Your task to perform on an android device: Is it going to rain tomorrow? Image 0: 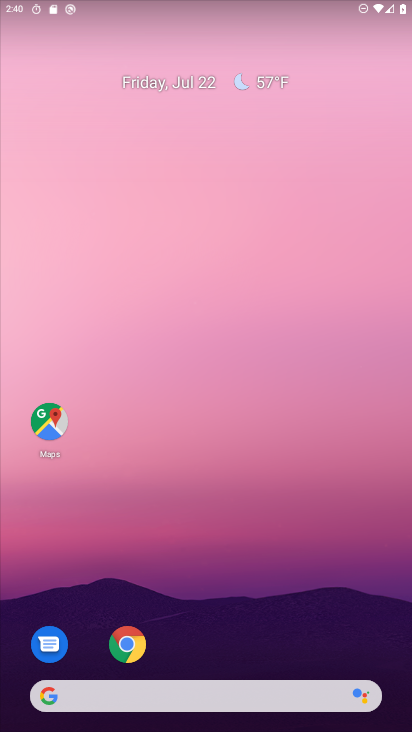
Step 0: drag from (184, 660) to (190, 309)
Your task to perform on an android device: Is it going to rain tomorrow? Image 1: 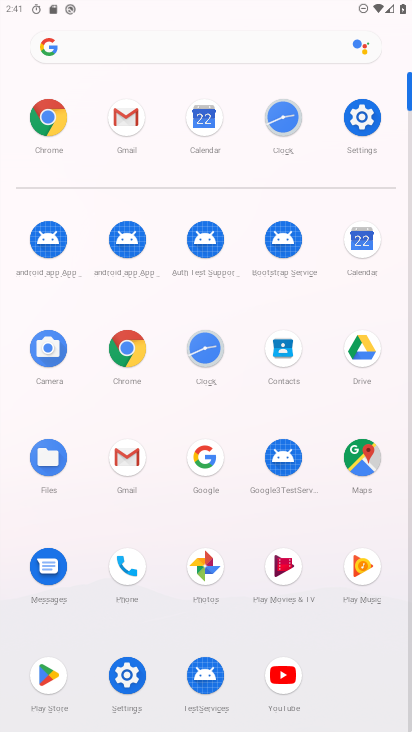
Step 1: click (200, 463)
Your task to perform on an android device: Is it going to rain tomorrow? Image 2: 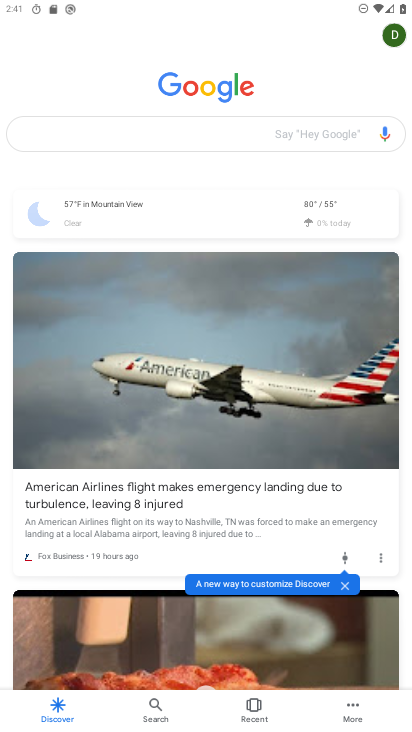
Step 2: click (172, 222)
Your task to perform on an android device: Is it going to rain tomorrow? Image 3: 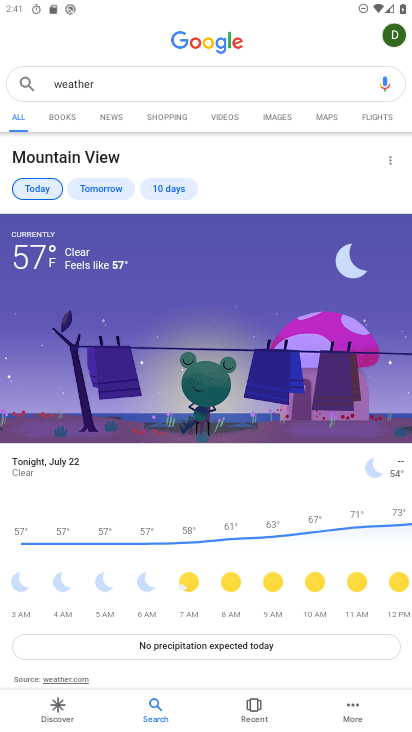
Step 3: click (88, 192)
Your task to perform on an android device: Is it going to rain tomorrow? Image 4: 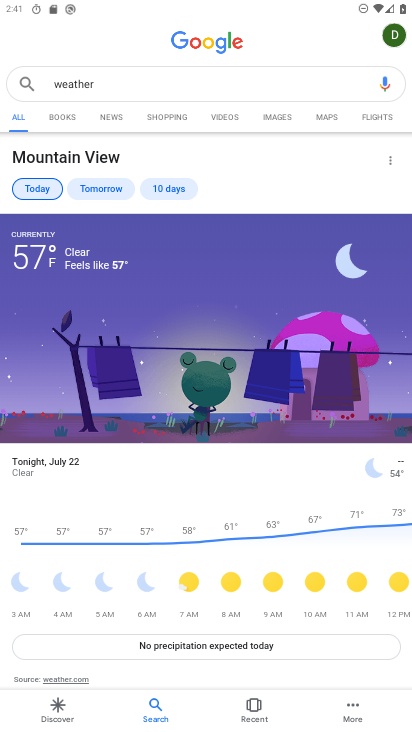
Step 4: click (101, 194)
Your task to perform on an android device: Is it going to rain tomorrow? Image 5: 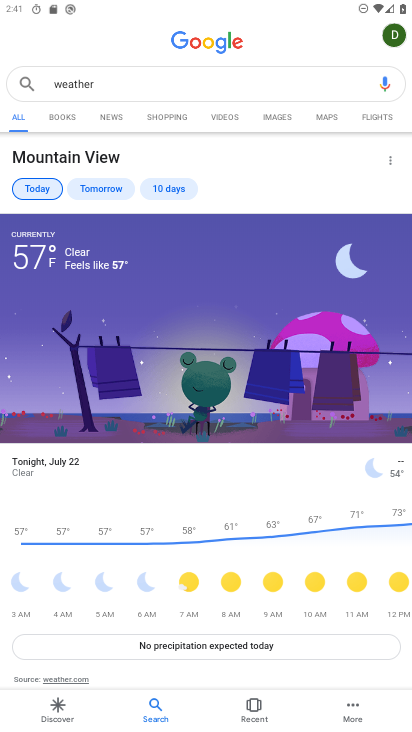
Step 5: click (93, 178)
Your task to perform on an android device: Is it going to rain tomorrow? Image 6: 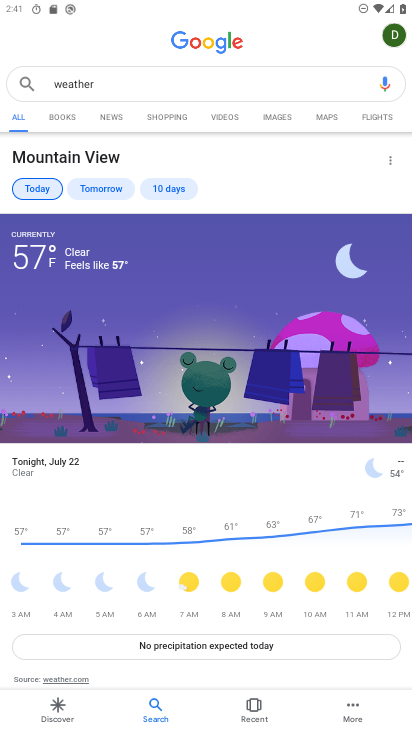
Step 6: click (93, 193)
Your task to perform on an android device: Is it going to rain tomorrow? Image 7: 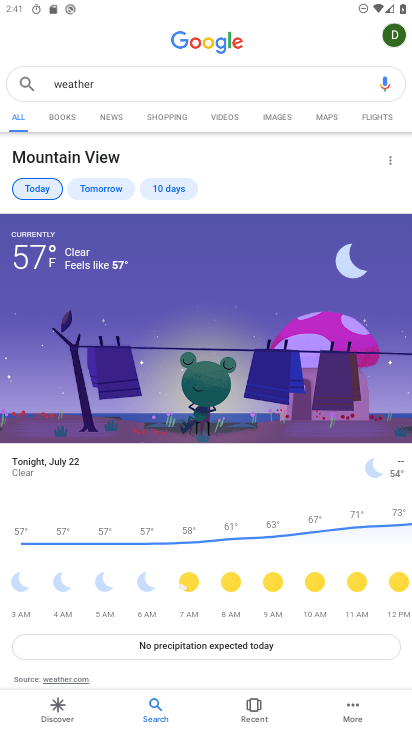
Step 7: click (93, 193)
Your task to perform on an android device: Is it going to rain tomorrow? Image 8: 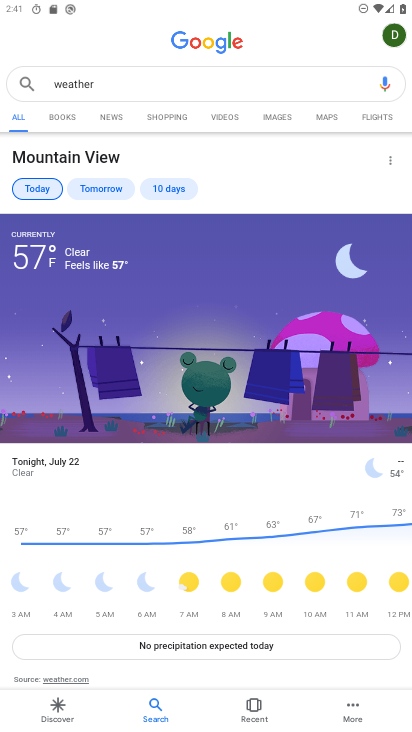
Step 8: click (93, 193)
Your task to perform on an android device: Is it going to rain tomorrow? Image 9: 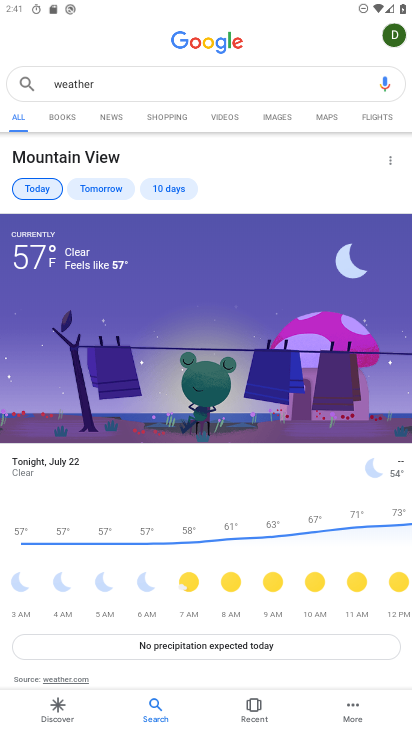
Step 9: click (93, 193)
Your task to perform on an android device: Is it going to rain tomorrow? Image 10: 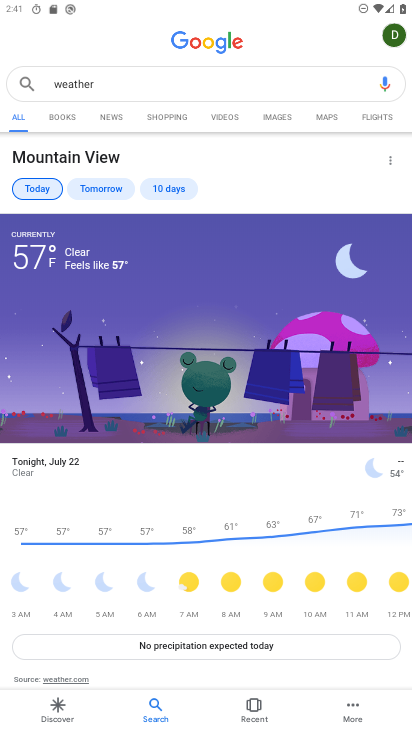
Step 10: click (93, 193)
Your task to perform on an android device: Is it going to rain tomorrow? Image 11: 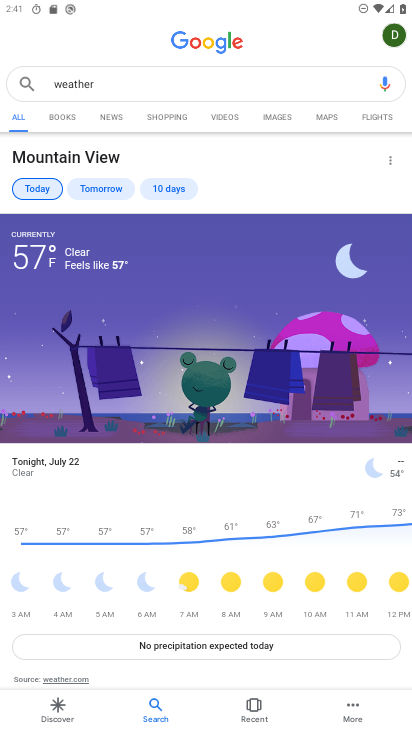
Step 11: click (93, 193)
Your task to perform on an android device: Is it going to rain tomorrow? Image 12: 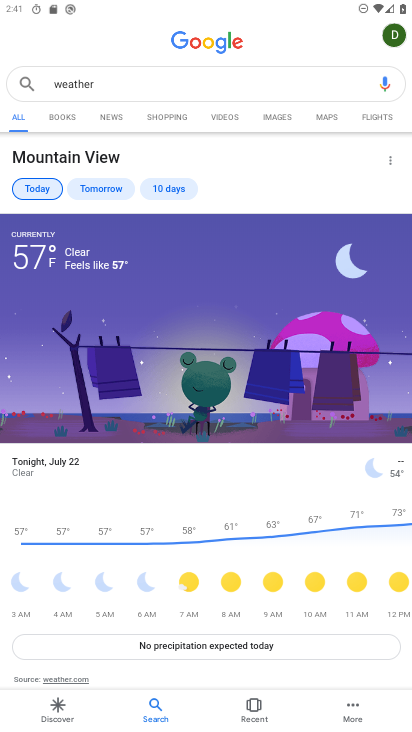
Step 12: click (93, 193)
Your task to perform on an android device: Is it going to rain tomorrow? Image 13: 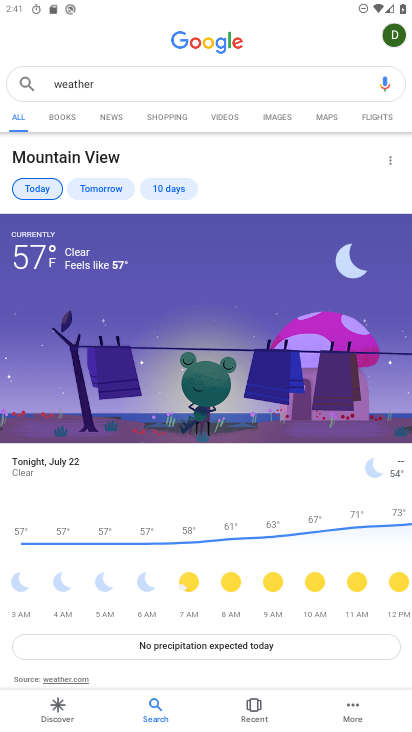
Step 13: click (93, 193)
Your task to perform on an android device: Is it going to rain tomorrow? Image 14: 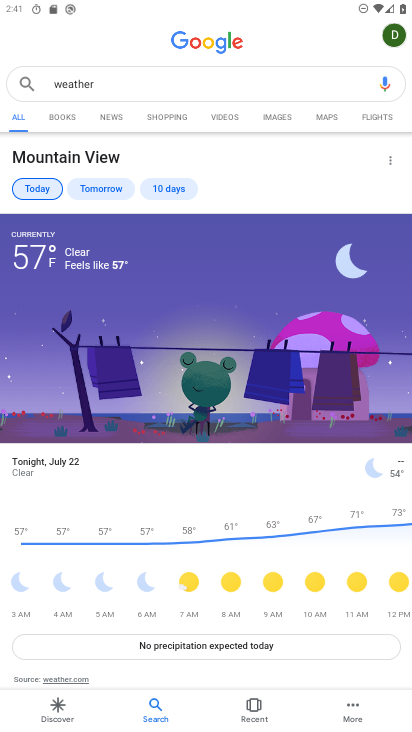
Step 14: click (93, 193)
Your task to perform on an android device: Is it going to rain tomorrow? Image 15: 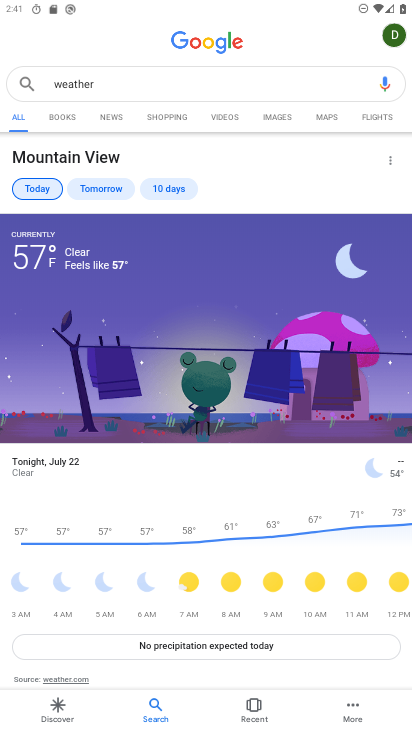
Step 15: click (105, 195)
Your task to perform on an android device: Is it going to rain tomorrow? Image 16: 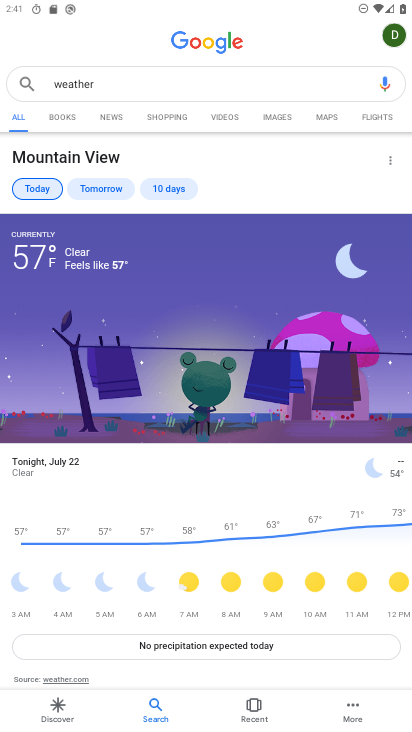
Step 16: click (105, 195)
Your task to perform on an android device: Is it going to rain tomorrow? Image 17: 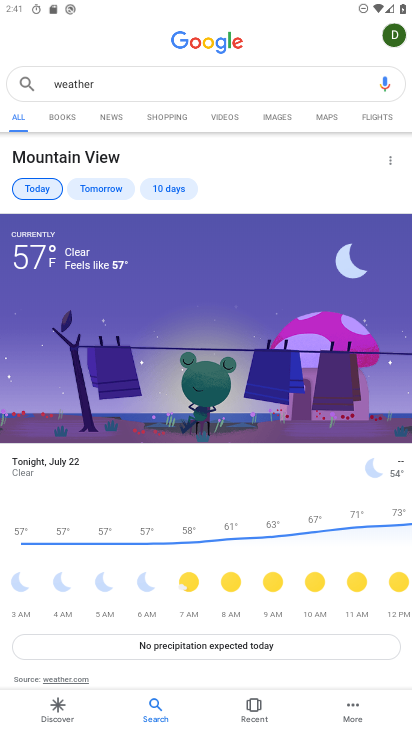
Step 17: click (105, 195)
Your task to perform on an android device: Is it going to rain tomorrow? Image 18: 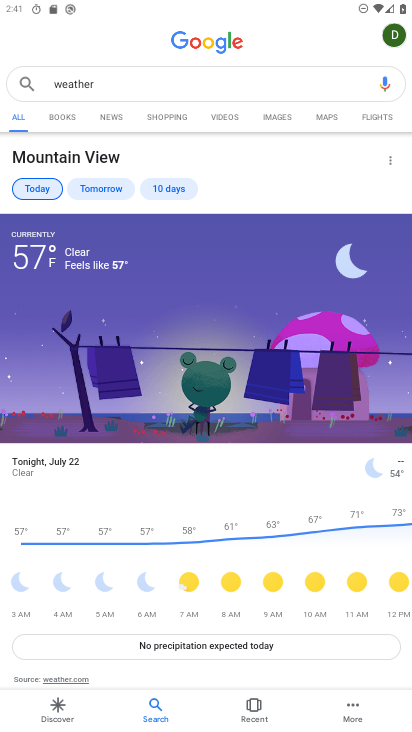
Step 18: click (120, 190)
Your task to perform on an android device: Is it going to rain tomorrow? Image 19: 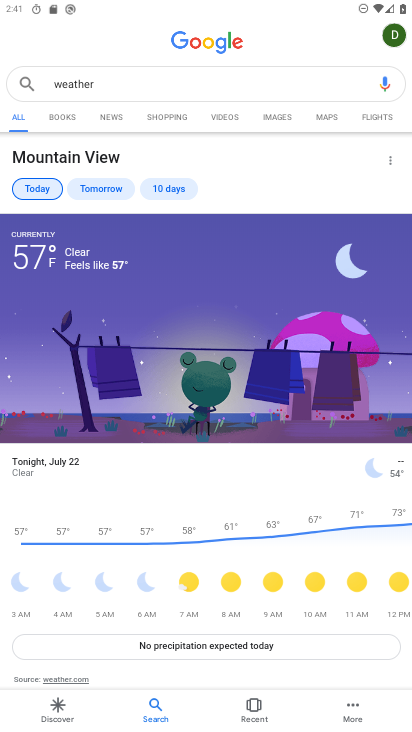
Step 19: click (99, 180)
Your task to perform on an android device: Is it going to rain tomorrow? Image 20: 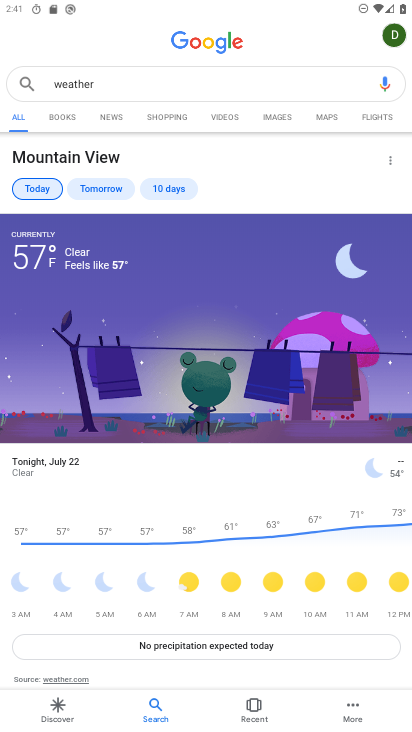
Step 20: click (93, 182)
Your task to perform on an android device: Is it going to rain tomorrow? Image 21: 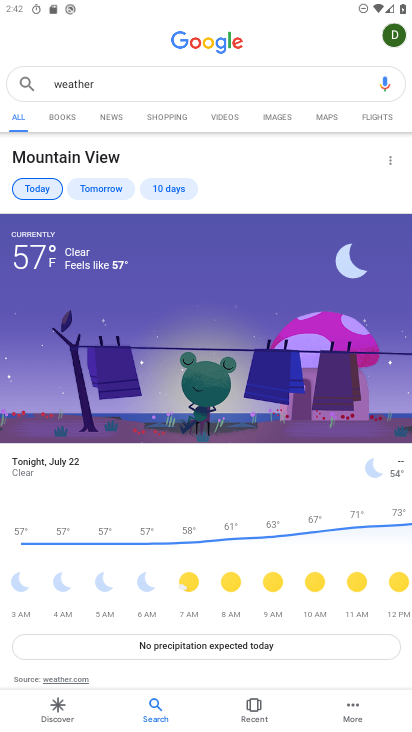
Step 21: click (108, 184)
Your task to perform on an android device: Is it going to rain tomorrow? Image 22: 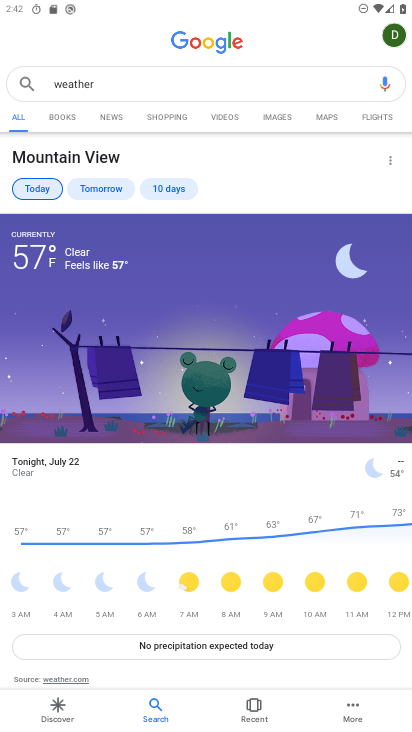
Step 22: task complete